Your task to perform on an android device: find which apps use the phone's location Image 0: 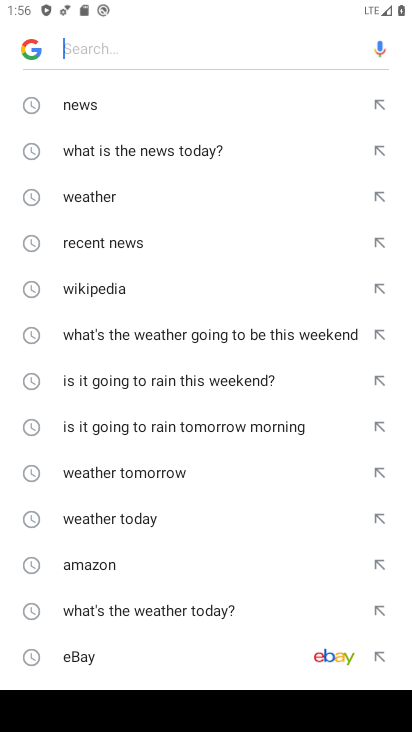
Step 0: press home button
Your task to perform on an android device: find which apps use the phone's location Image 1: 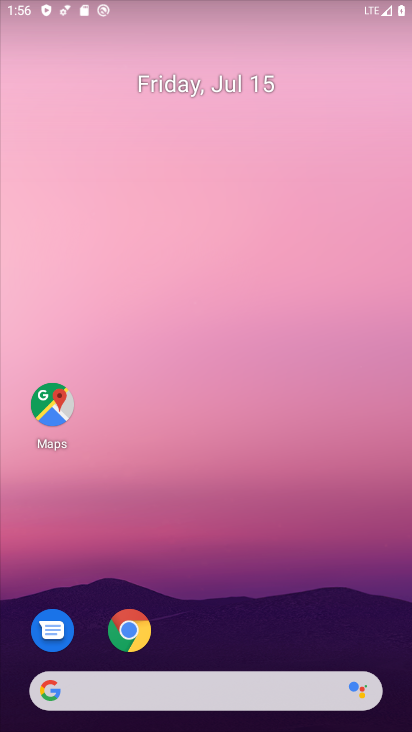
Step 1: drag from (272, 597) to (323, 47)
Your task to perform on an android device: find which apps use the phone's location Image 2: 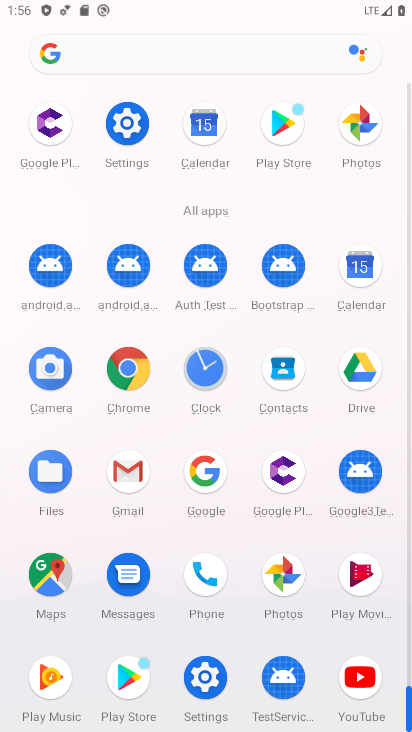
Step 2: click (138, 133)
Your task to perform on an android device: find which apps use the phone's location Image 3: 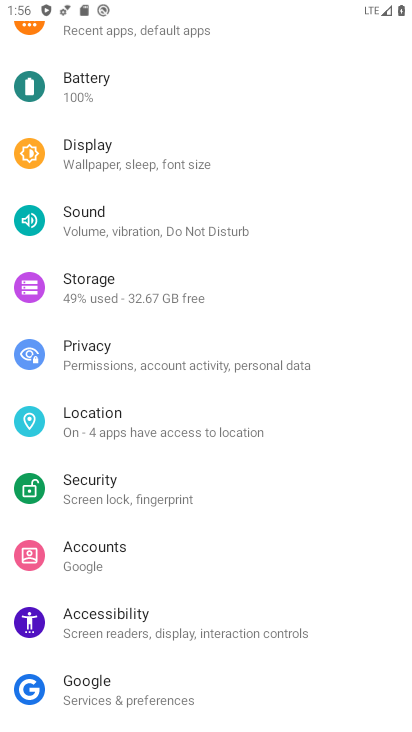
Step 3: click (82, 433)
Your task to perform on an android device: find which apps use the phone's location Image 4: 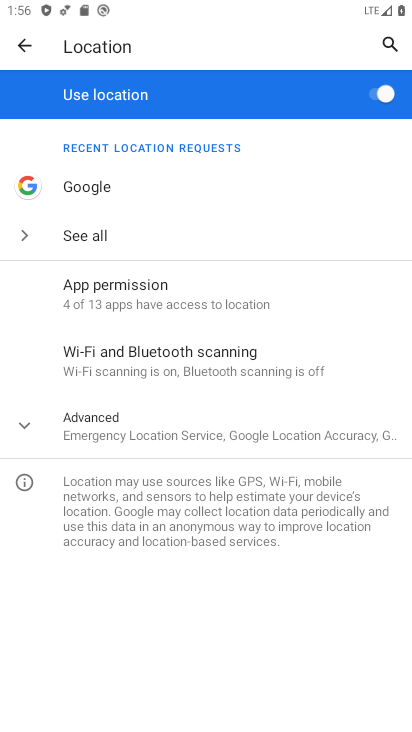
Step 4: click (101, 288)
Your task to perform on an android device: find which apps use the phone's location Image 5: 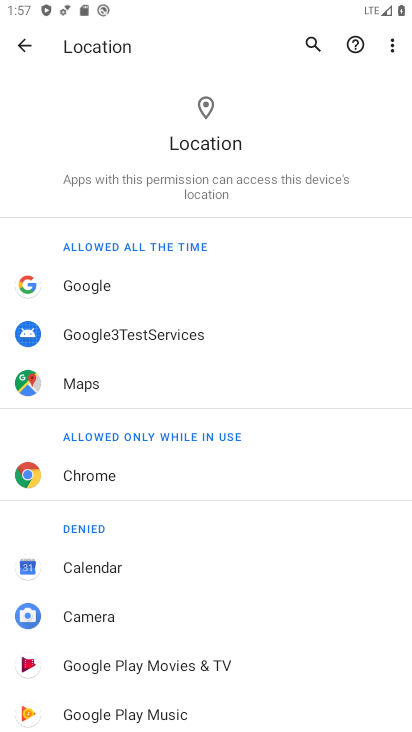
Step 5: press home button
Your task to perform on an android device: find which apps use the phone's location Image 6: 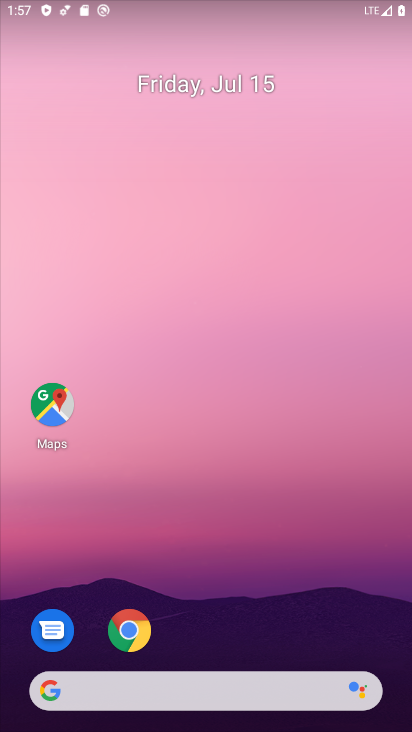
Step 6: drag from (286, 625) to (273, 280)
Your task to perform on an android device: find which apps use the phone's location Image 7: 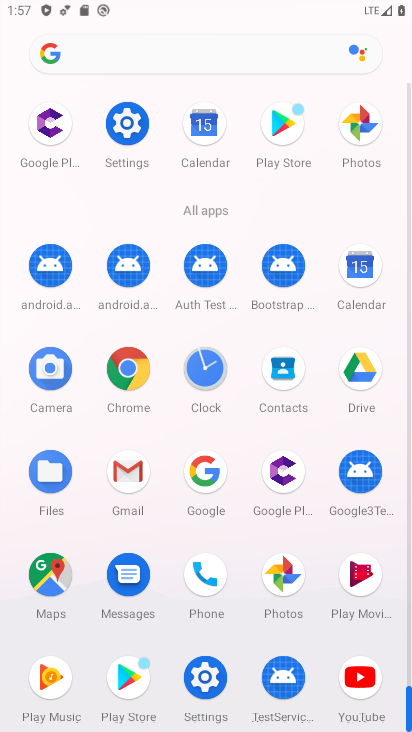
Step 7: click (117, 130)
Your task to perform on an android device: find which apps use the phone's location Image 8: 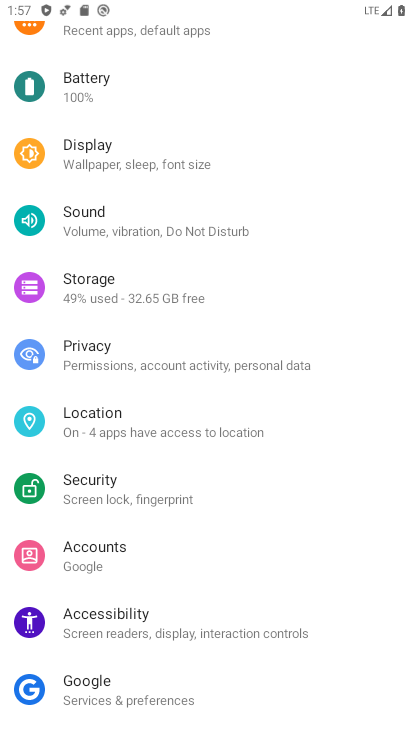
Step 8: click (146, 428)
Your task to perform on an android device: find which apps use the phone's location Image 9: 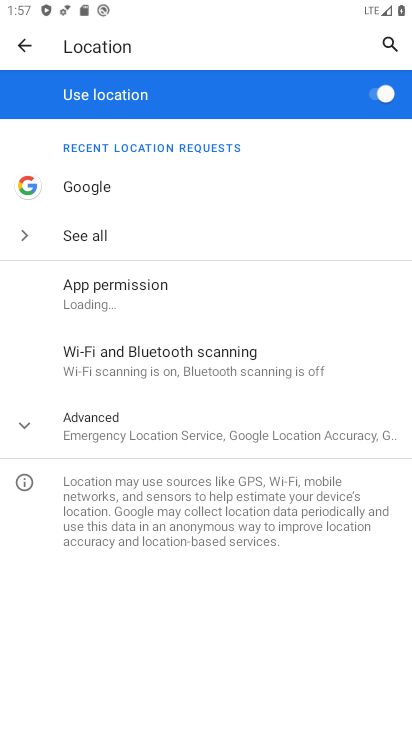
Step 9: click (115, 291)
Your task to perform on an android device: find which apps use the phone's location Image 10: 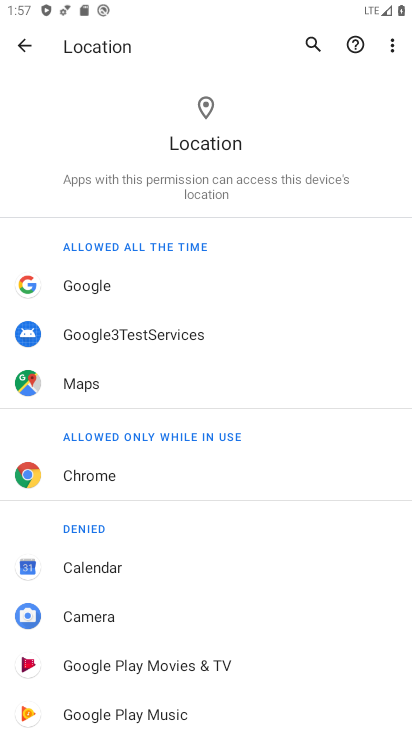
Step 10: task complete